Your task to perform on an android device: turn notification dots on Image 0: 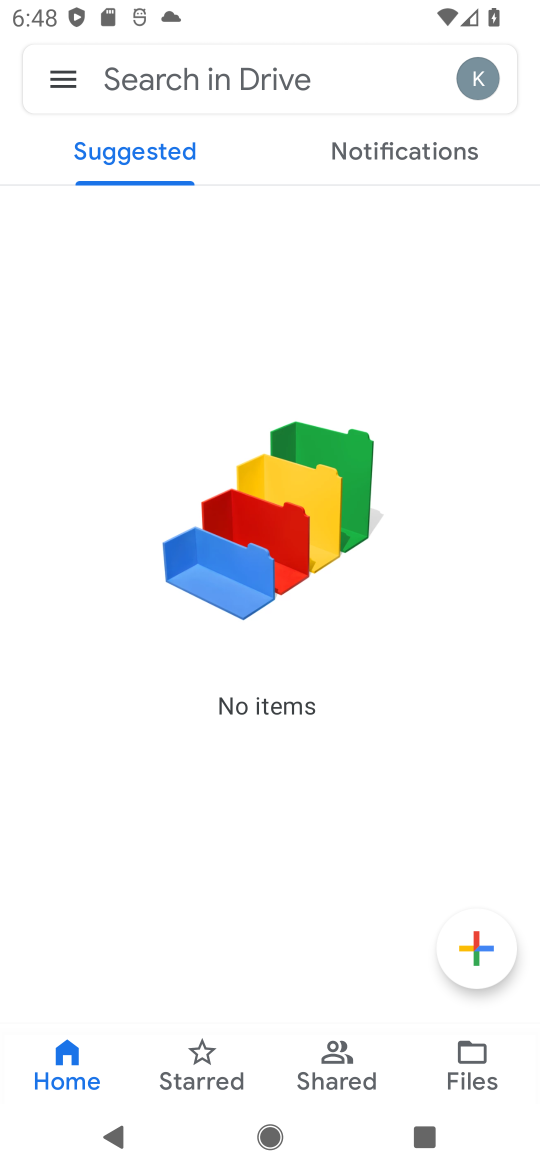
Step 0: press home button
Your task to perform on an android device: turn notification dots on Image 1: 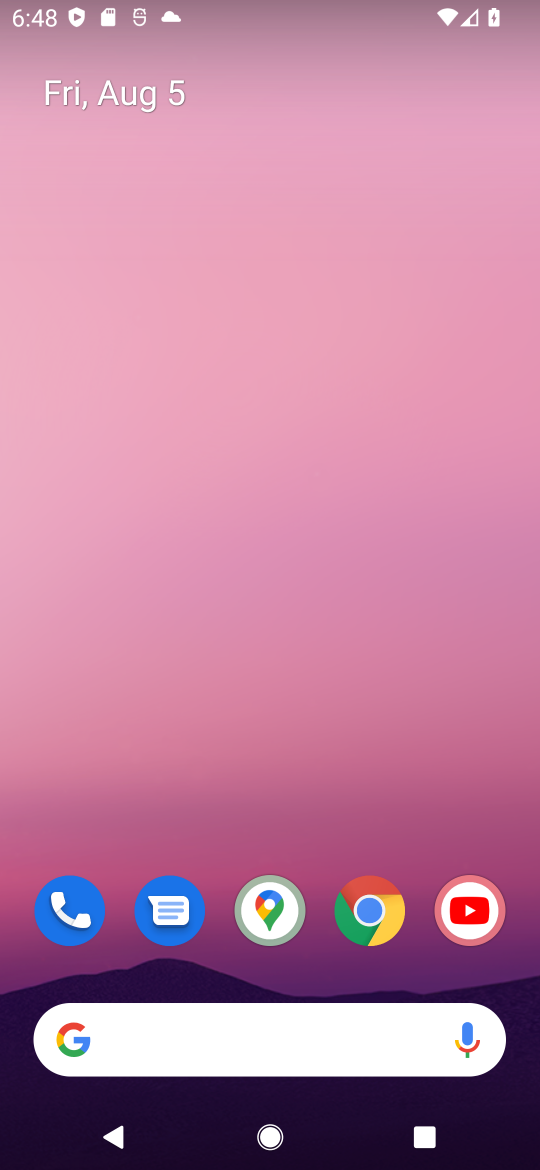
Step 1: drag from (179, 1035) to (65, 3)
Your task to perform on an android device: turn notification dots on Image 2: 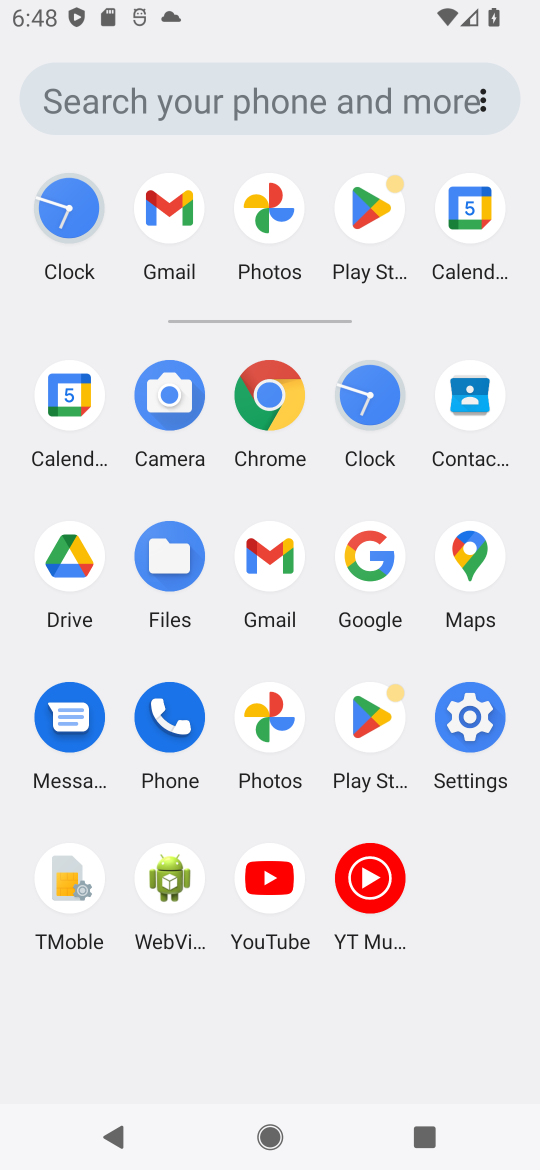
Step 2: click (446, 707)
Your task to perform on an android device: turn notification dots on Image 3: 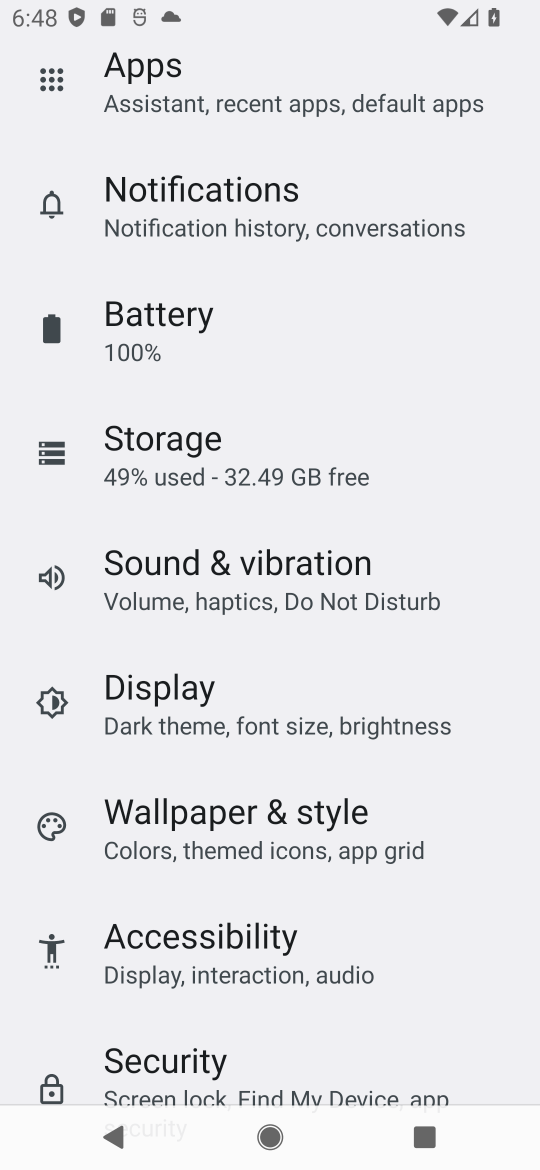
Step 3: click (309, 206)
Your task to perform on an android device: turn notification dots on Image 4: 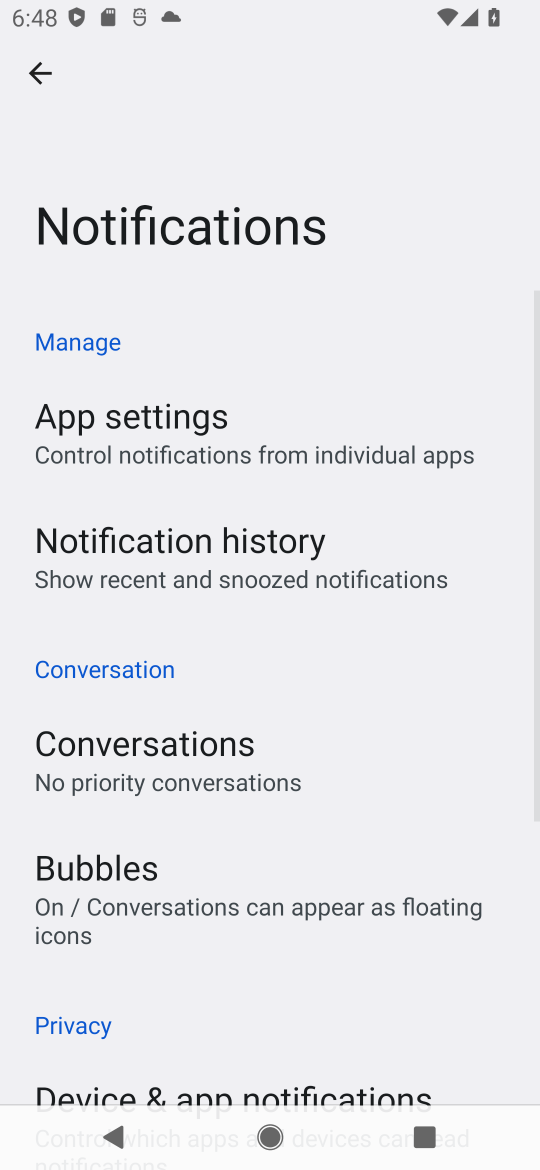
Step 4: task complete